Your task to perform on an android device: Open Google Chrome and click the shortcut for Amazon.com Image 0: 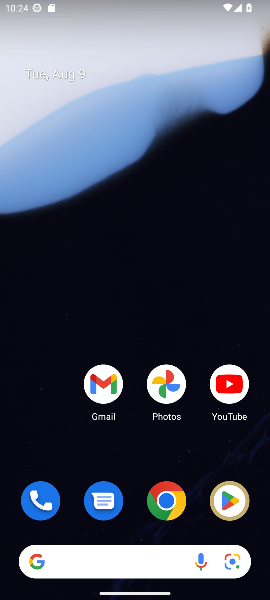
Step 0: click (170, 500)
Your task to perform on an android device: Open Google Chrome and click the shortcut for Amazon.com Image 1: 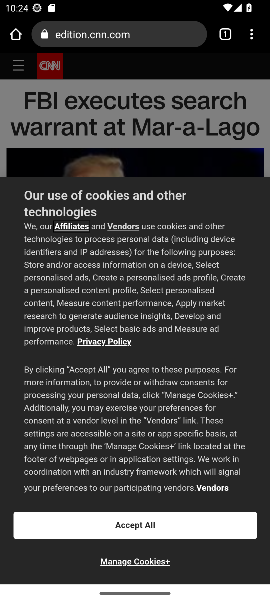
Step 1: click (230, 32)
Your task to perform on an android device: Open Google Chrome and click the shortcut for Amazon.com Image 2: 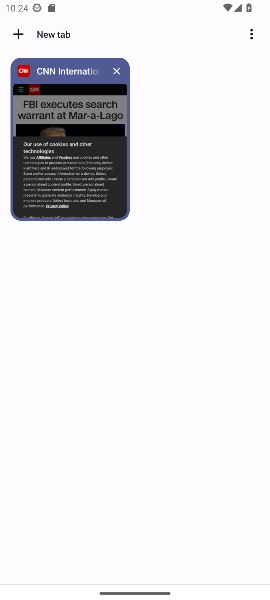
Step 2: click (119, 78)
Your task to perform on an android device: Open Google Chrome and click the shortcut for Amazon.com Image 3: 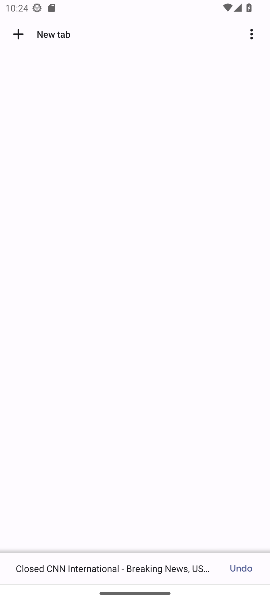
Step 3: click (19, 37)
Your task to perform on an android device: Open Google Chrome and click the shortcut for Amazon.com Image 4: 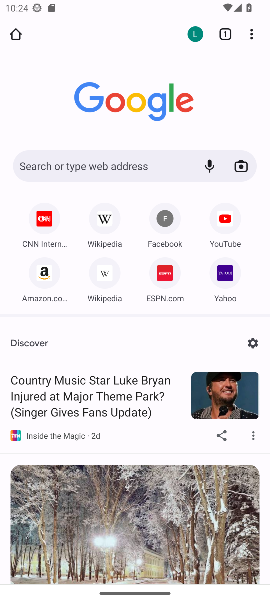
Step 4: click (38, 278)
Your task to perform on an android device: Open Google Chrome and click the shortcut for Amazon.com Image 5: 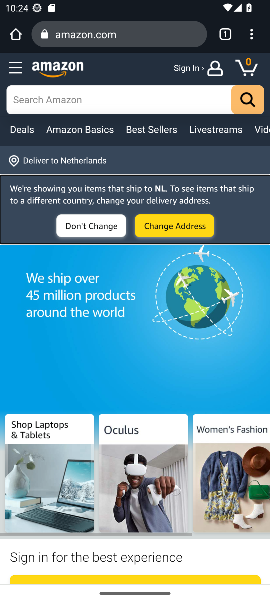
Step 5: task complete